Your task to perform on an android device: Show me popular videos on Youtube Image 0: 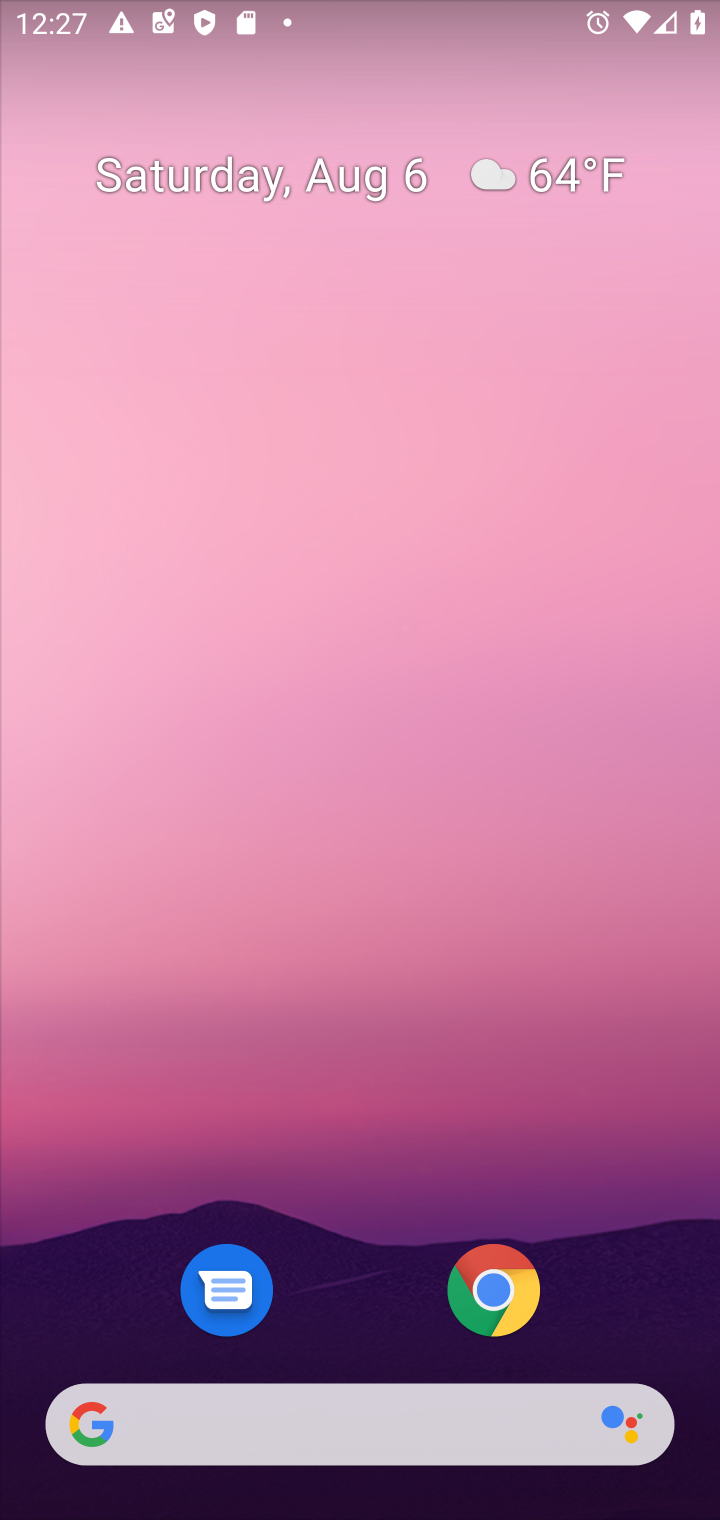
Step 0: press home button
Your task to perform on an android device: Show me popular videos on Youtube Image 1: 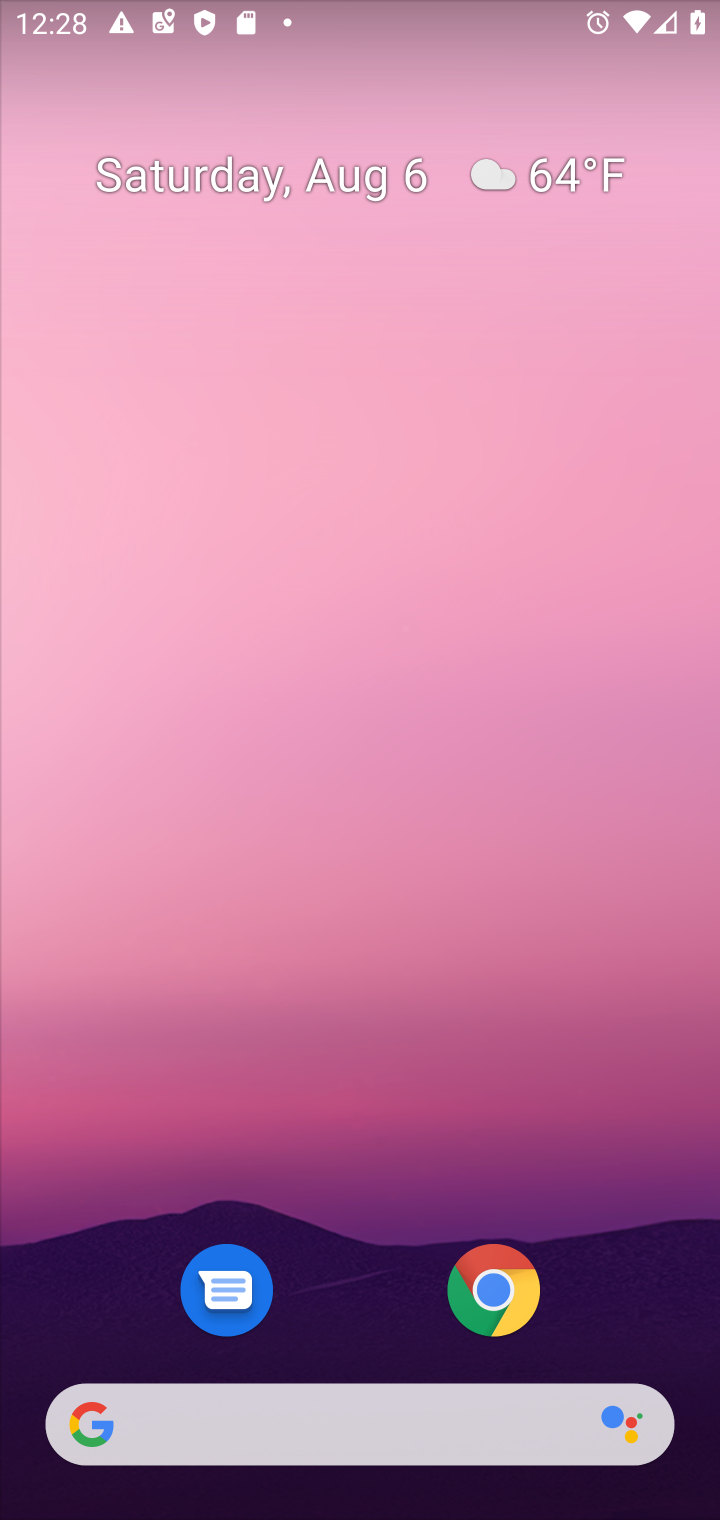
Step 1: drag from (374, 1326) to (413, 38)
Your task to perform on an android device: Show me popular videos on Youtube Image 2: 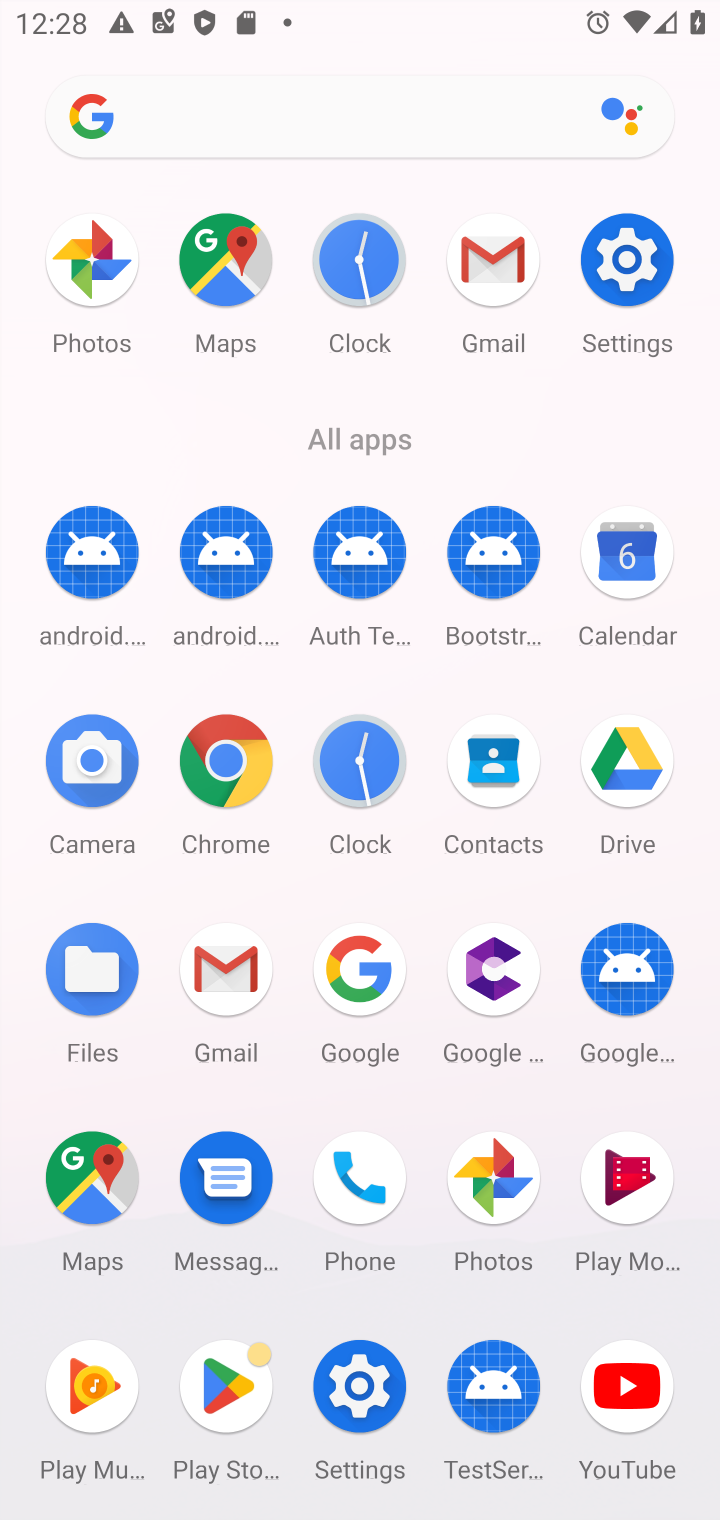
Step 2: click (622, 1377)
Your task to perform on an android device: Show me popular videos on Youtube Image 3: 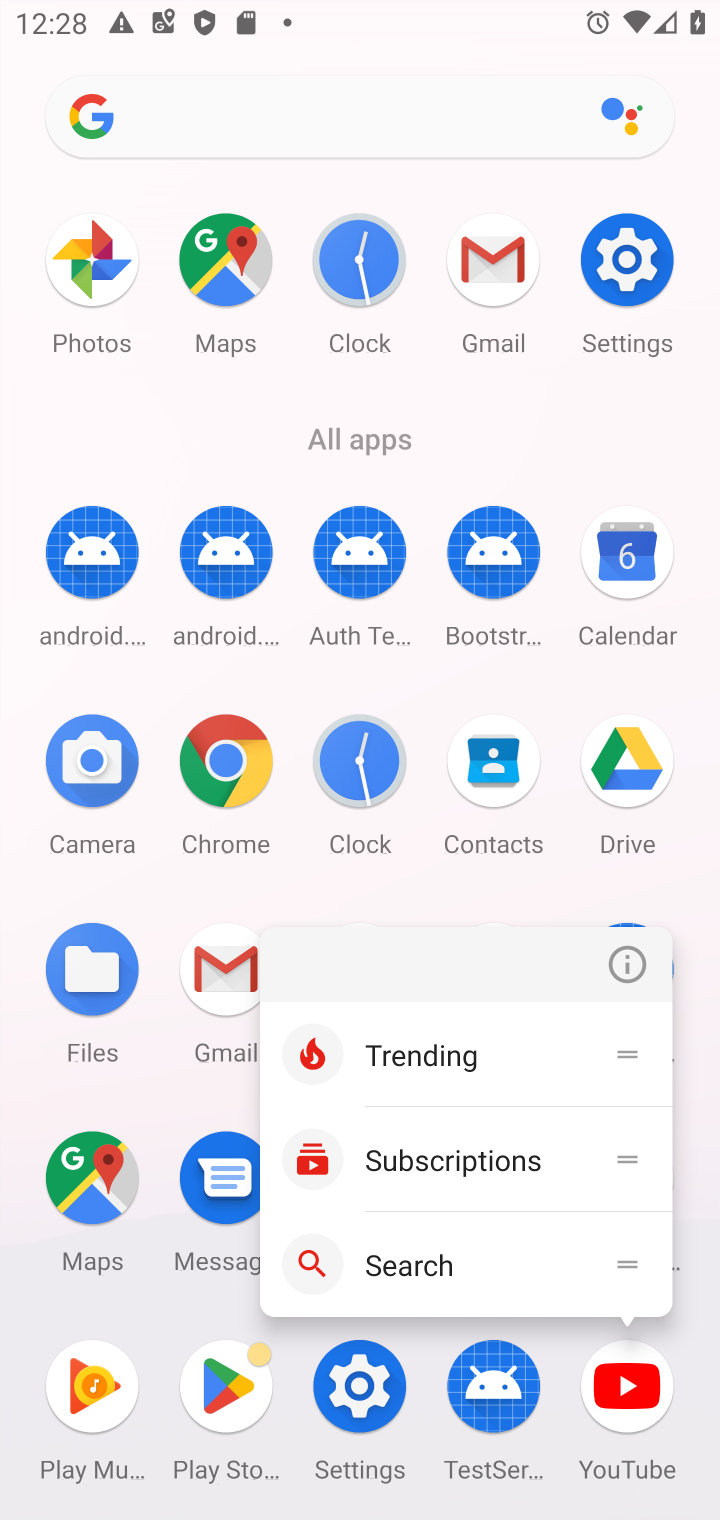
Step 3: click (626, 1373)
Your task to perform on an android device: Show me popular videos on Youtube Image 4: 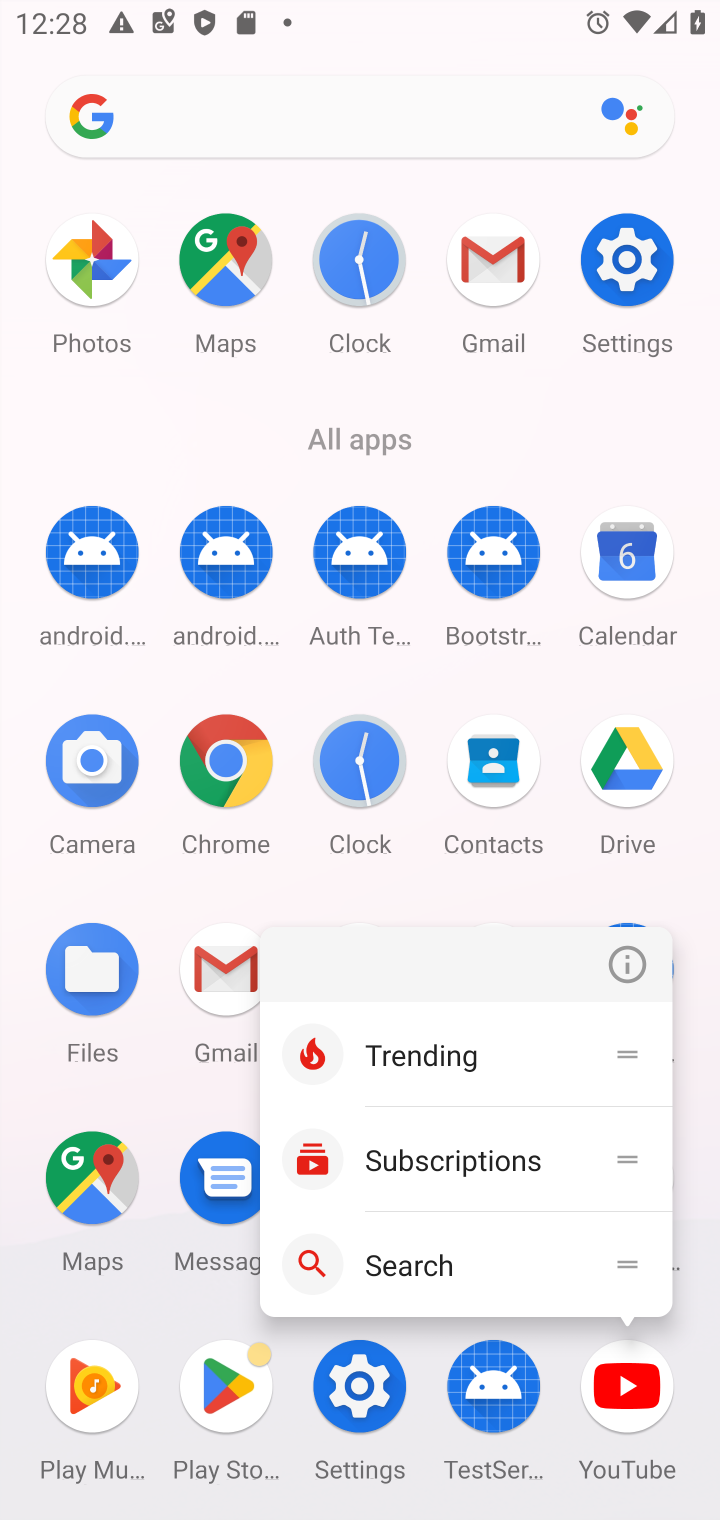
Step 4: click (626, 1373)
Your task to perform on an android device: Show me popular videos on Youtube Image 5: 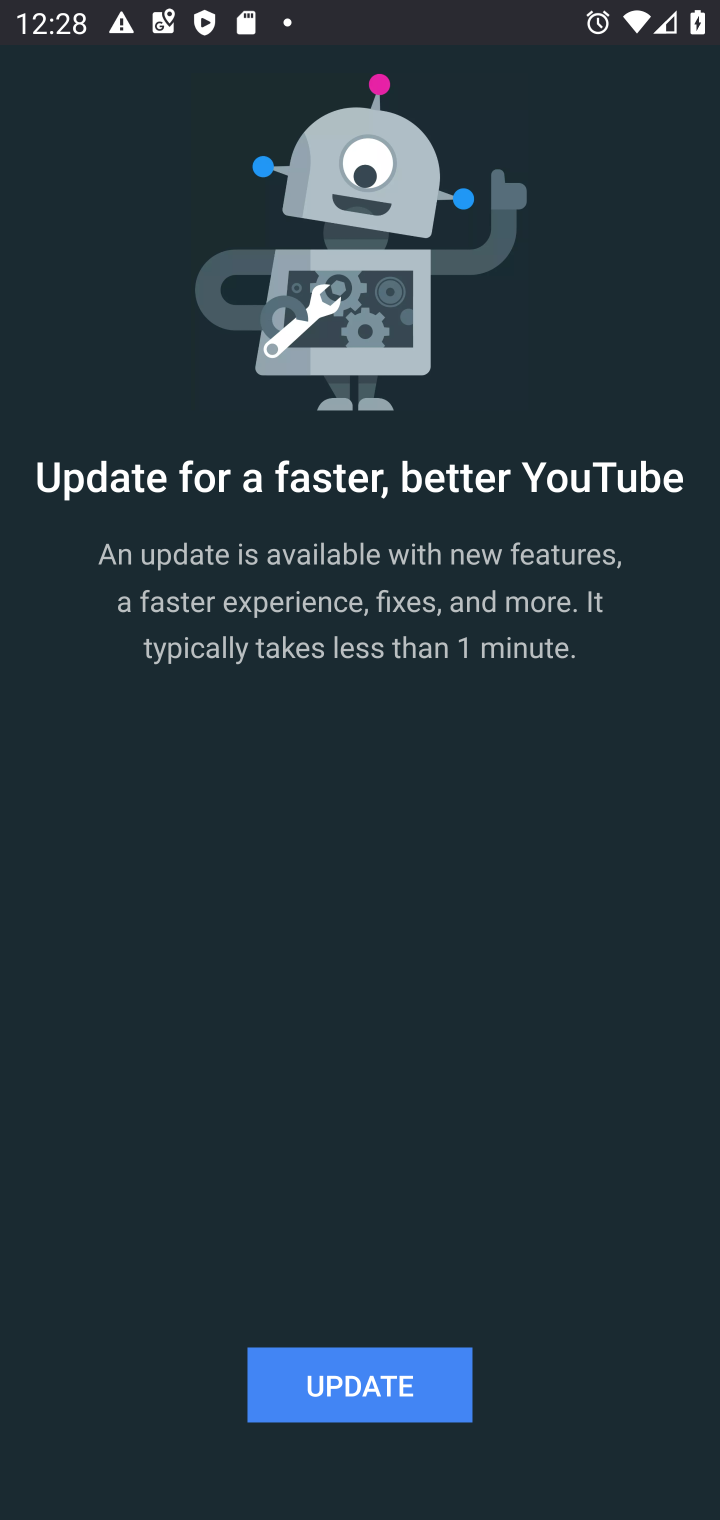
Step 5: click (359, 1376)
Your task to perform on an android device: Show me popular videos on Youtube Image 6: 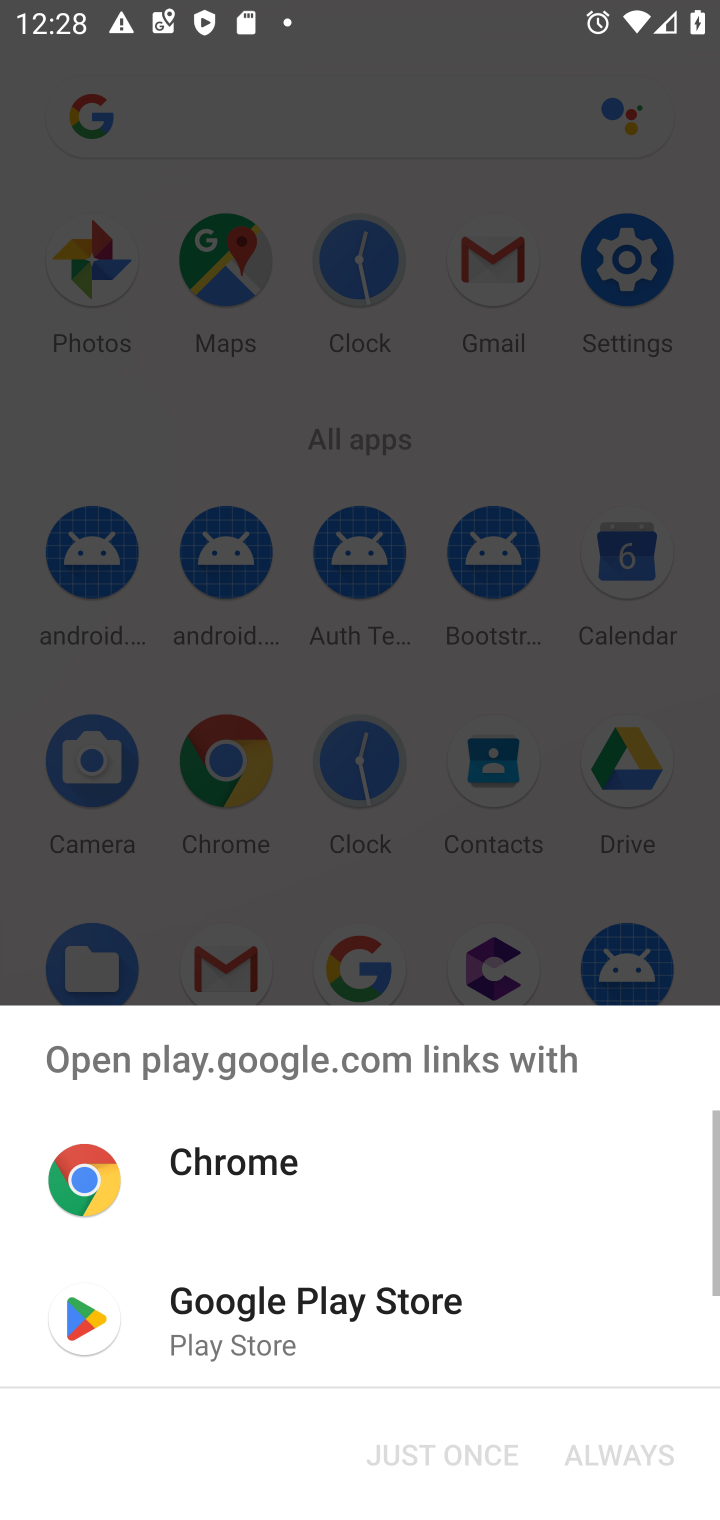
Step 6: click (216, 1311)
Your task to perform on an android device: Show me popular videos on Youtube Image 7: 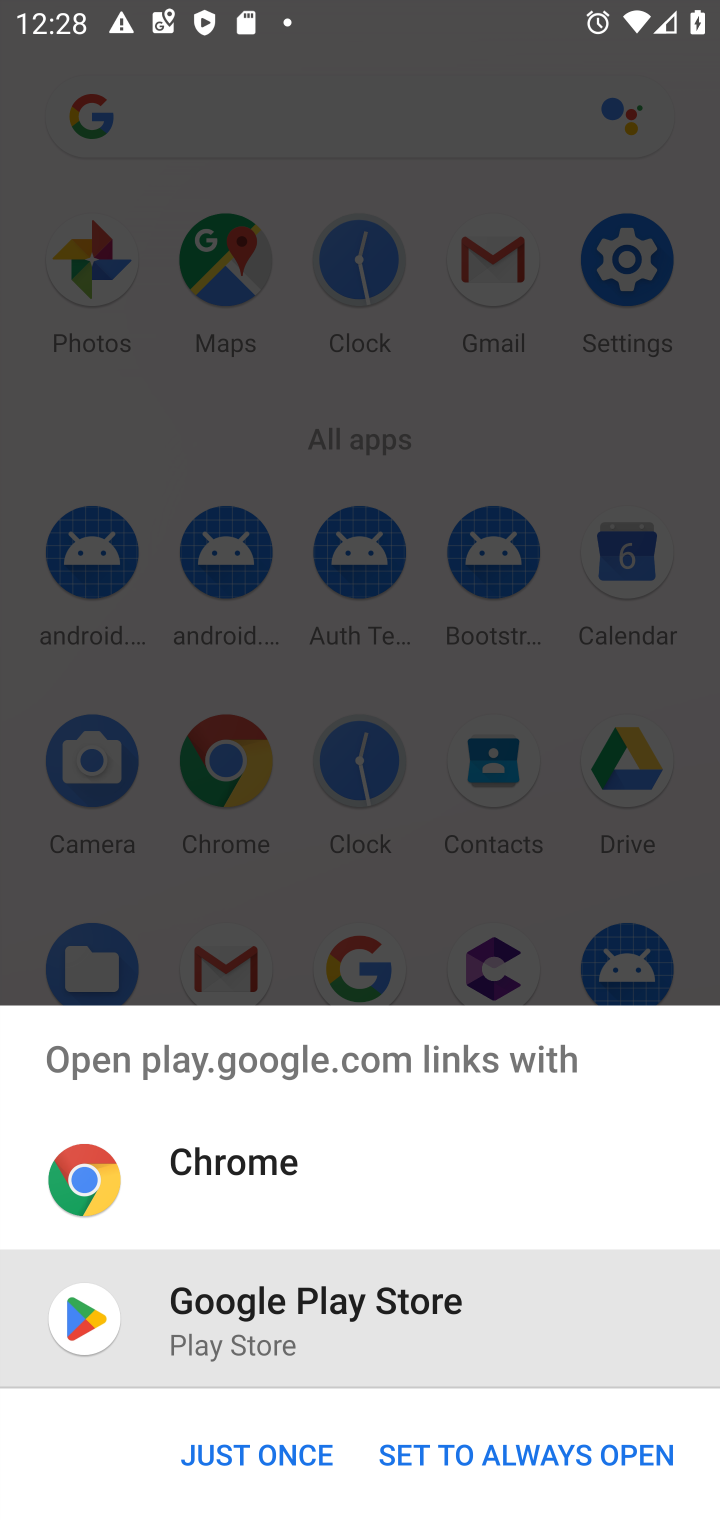
Step 7: click (247, 1444)
Your task to perform on an android device: Show me popular videos on Youtube Image 8: 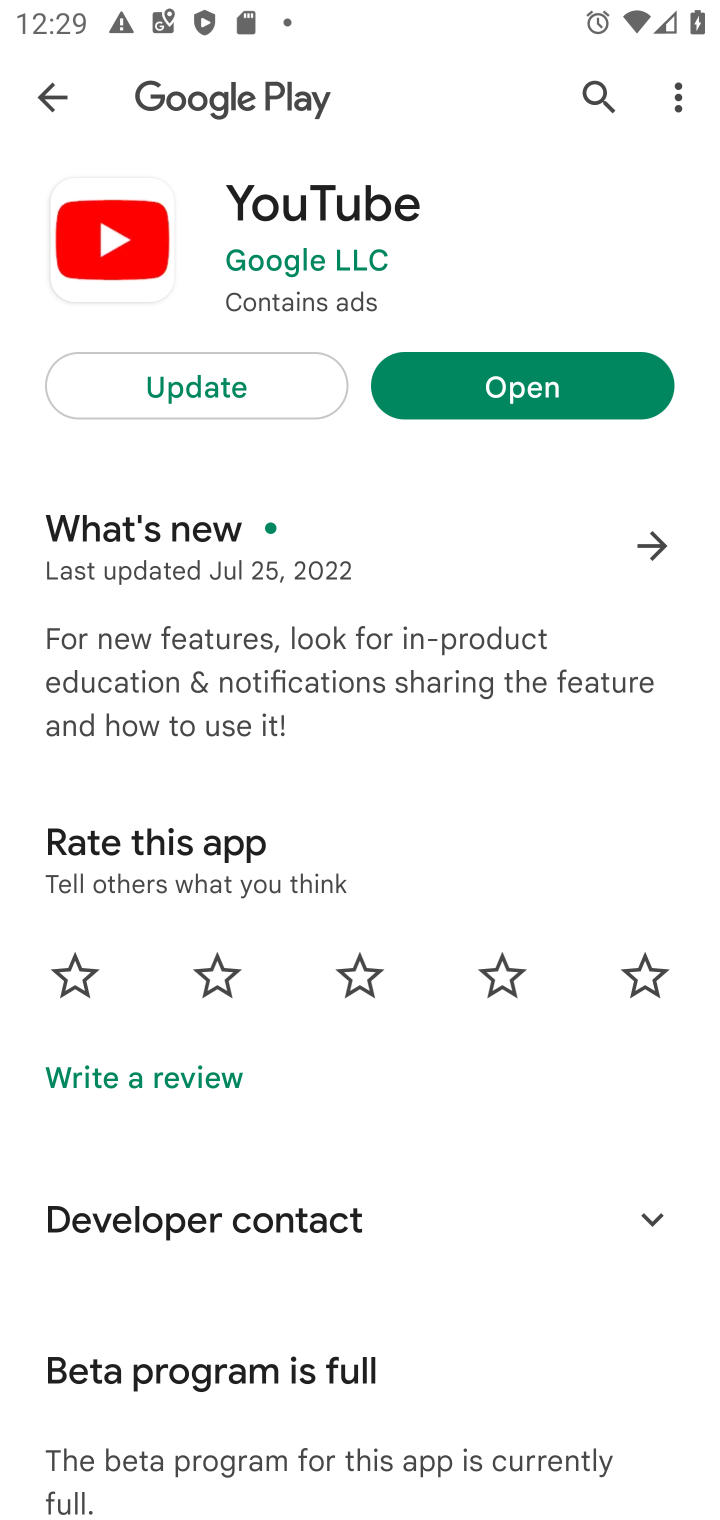
Step 8: click (194, 377)
Your task to perform on an android device: Show me popular videos on Youtube Image 9: 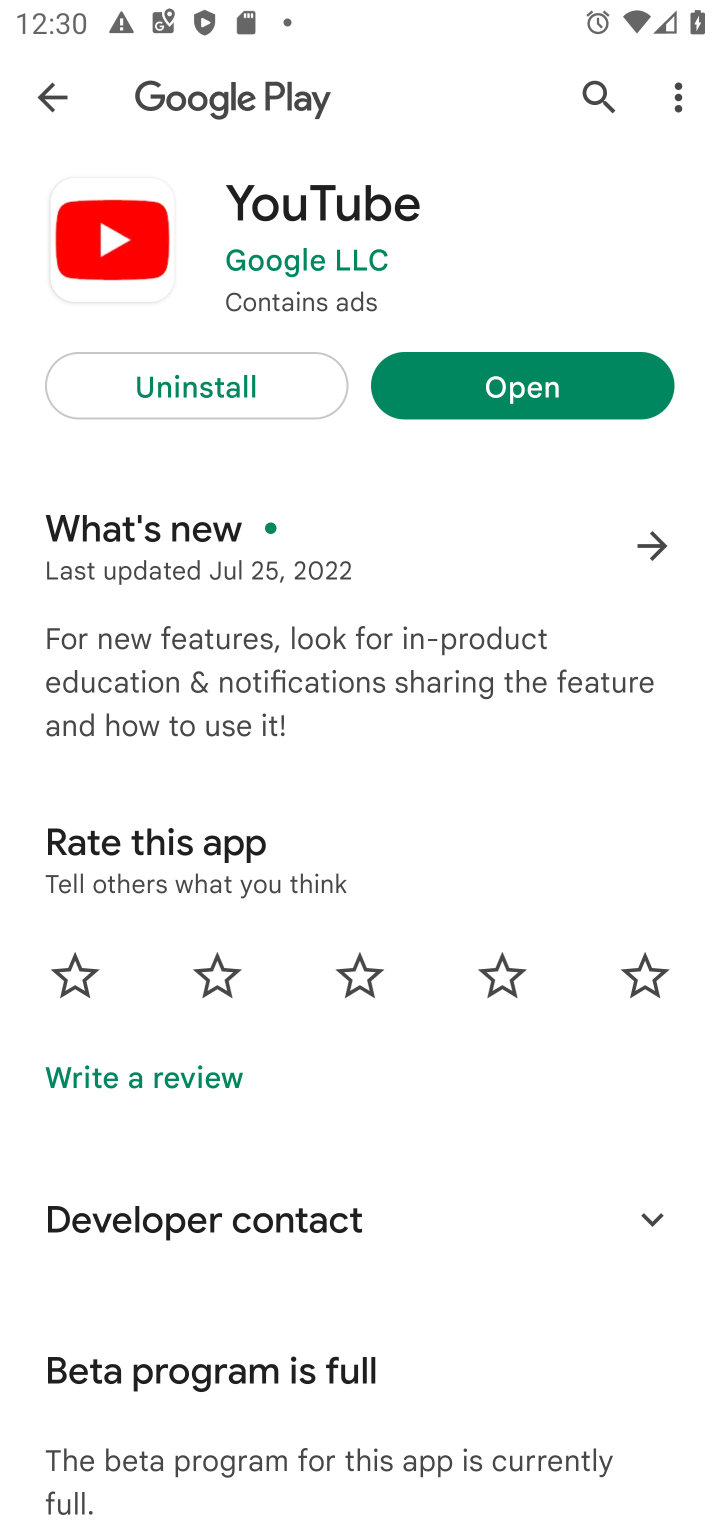
Step 9: click (526, 381)
Your task to perform on an android device: Show me popular videos on Youtube Image 10: 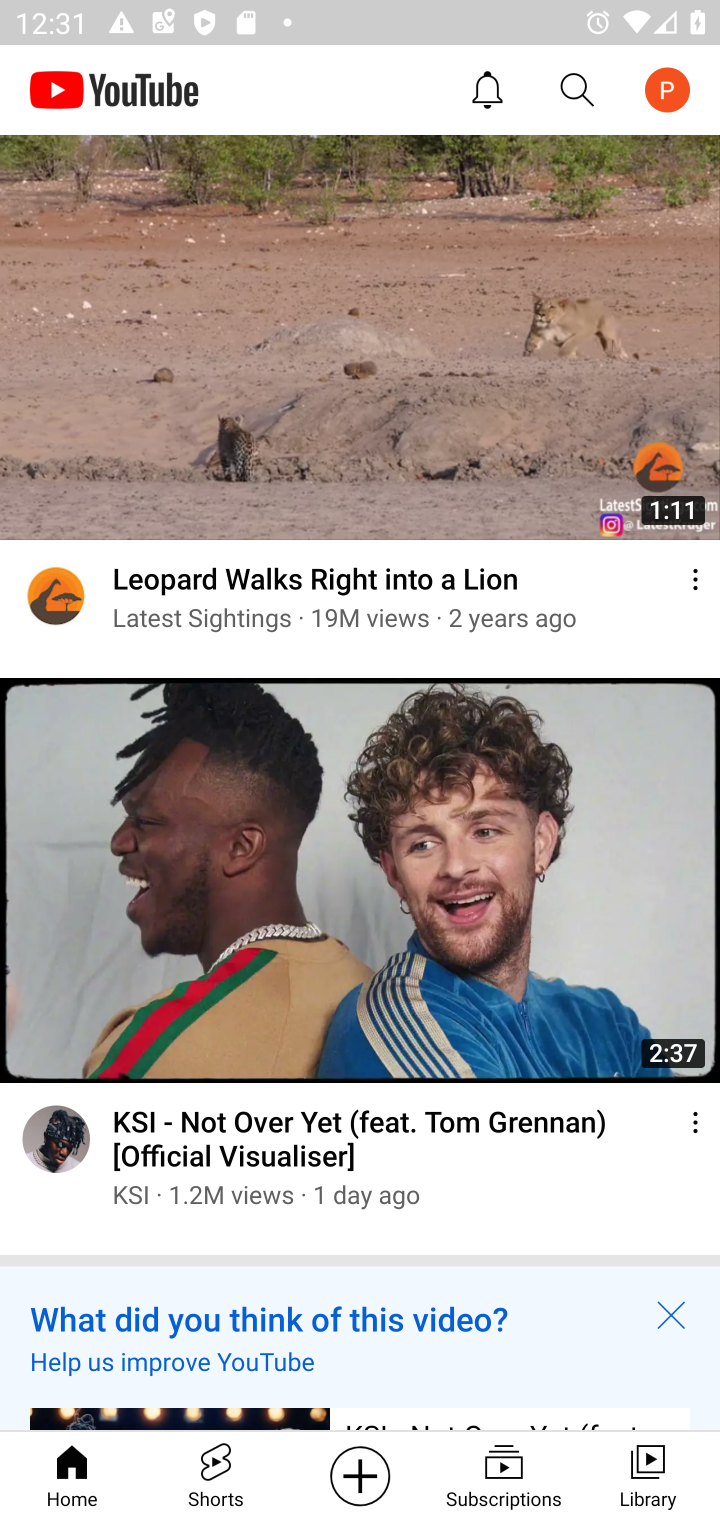
Step 10: drag from (163, 354) to (184, 1125)
Your task to perform on an android device: Show me popular videos on Youtube Image 11: 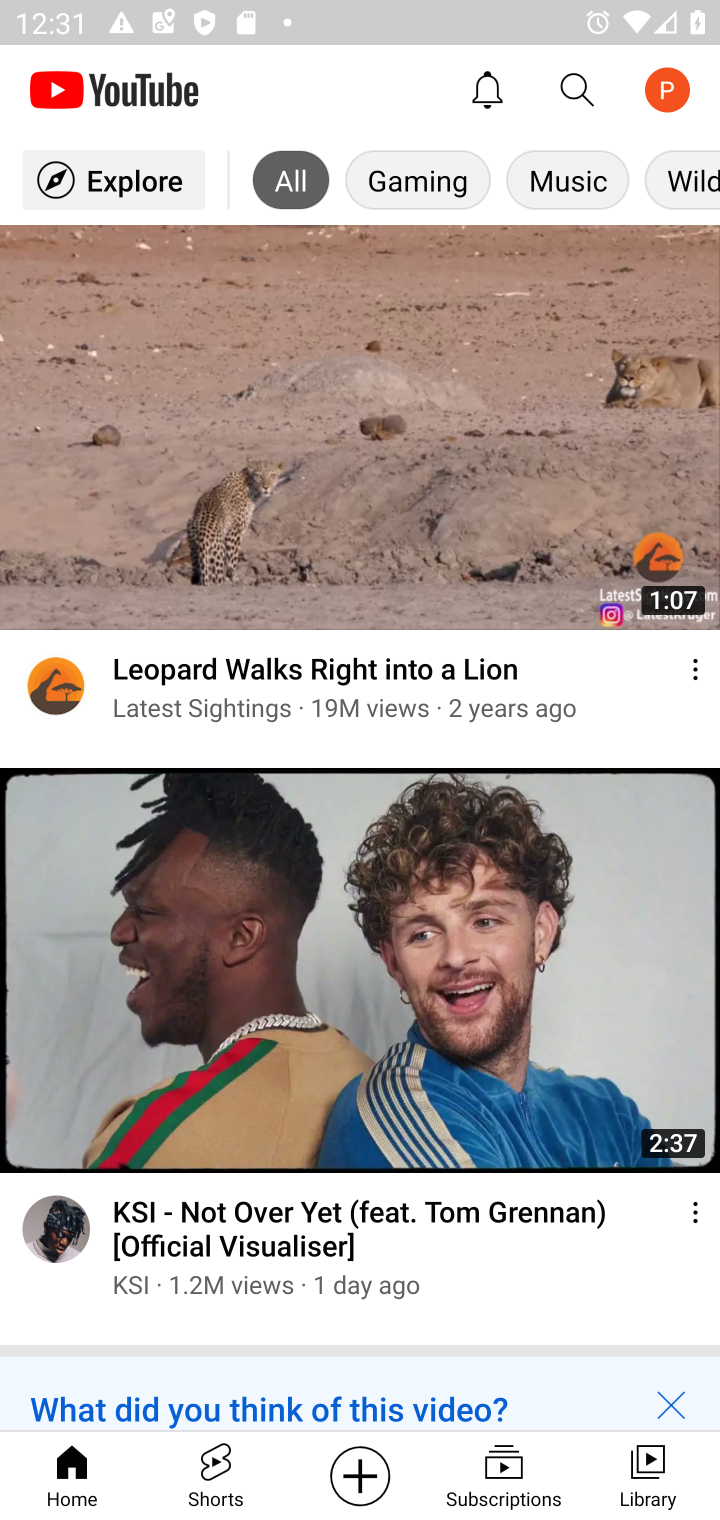
Step 11: click (121, 167)
Your task to perform on an android device: Show me popular videos on Youtube Image 12: 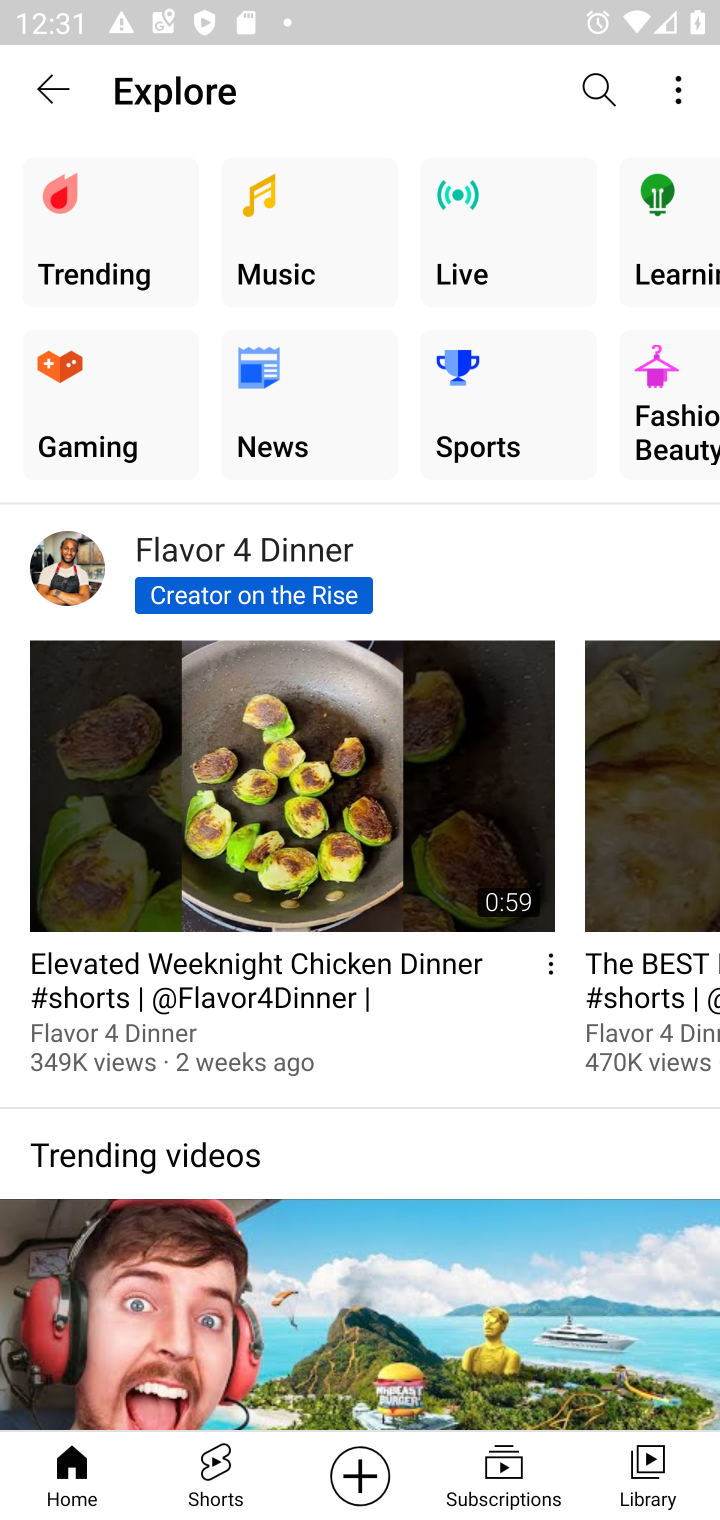
Step 12: click (88, 210)
Your task to perform on an android device: Show me popular videos on Youtube Image 13: 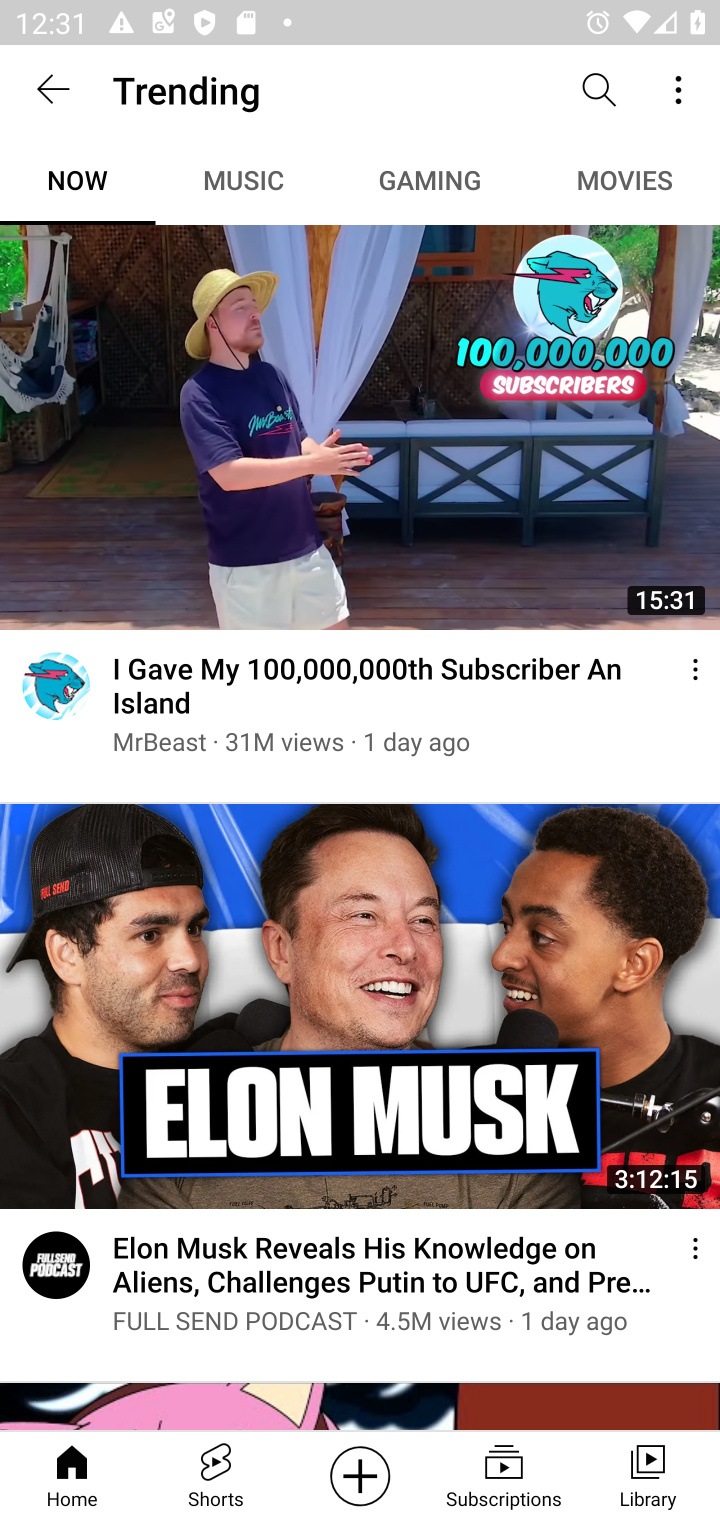
Step 13: task complete